Your task to perform on an android device: toggle translation in the chrome app Image 0: 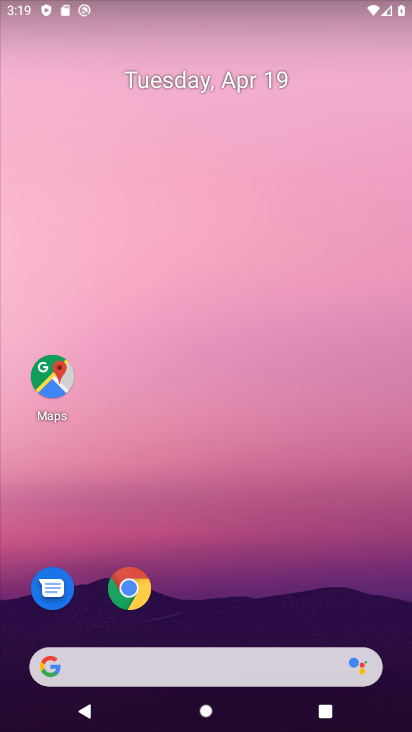
Step 0: drag from (254, 576) to (261, 110)
Your task to perform on an android device: toggle translation in the chrome app Image 1: 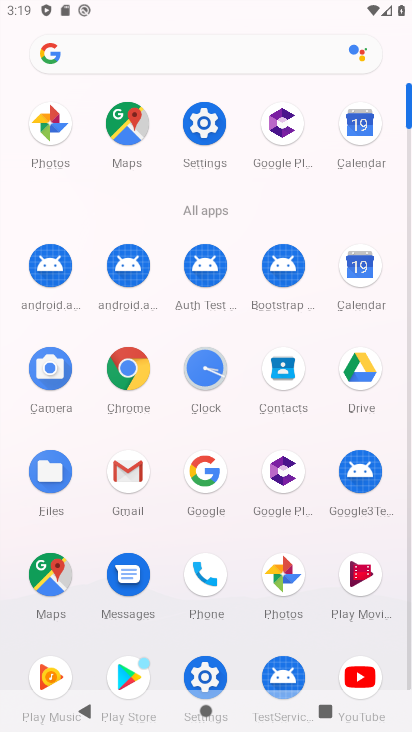
Step 1: click (122, 377)
Your task to perform on an android device: toggle translation in the chrome app Image 2: 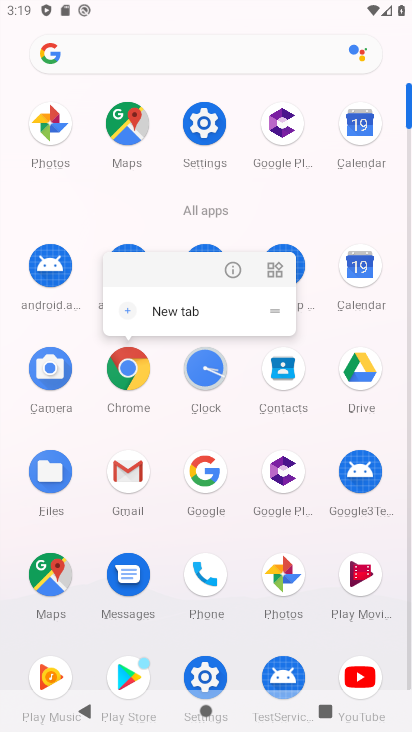
Step 2: click (134, 370)
Your task to perform on an android device: toggle translation in the chrome app Image 3: 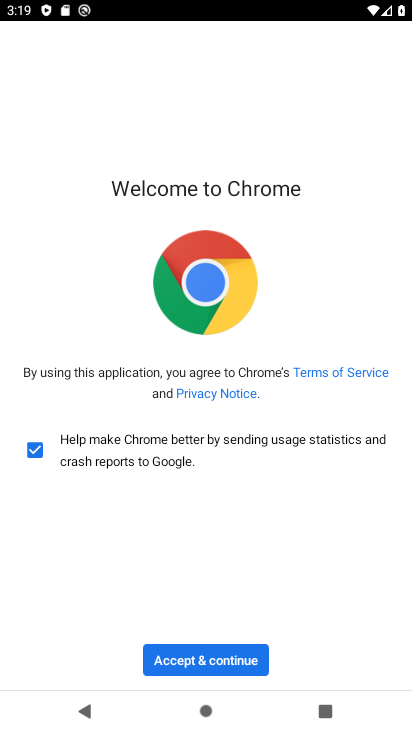
Step 3: click (234, 650)
Your task to perform on an android device: toggle translation in the chrome app Image 4: 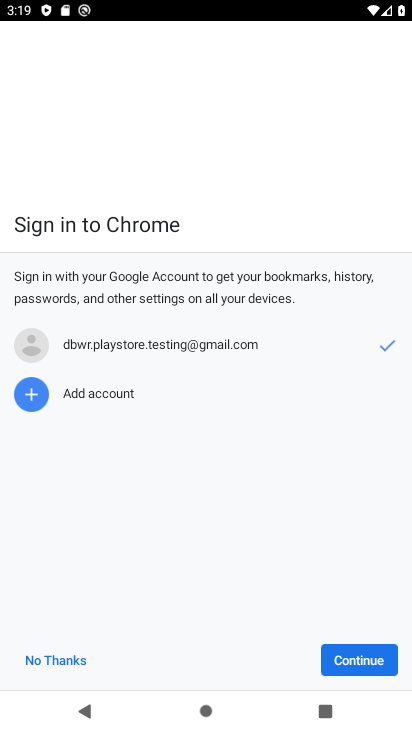
Step 4: click (356, 661)
Your task to perform on an android device: toggle translation in the chrome app Image 5: 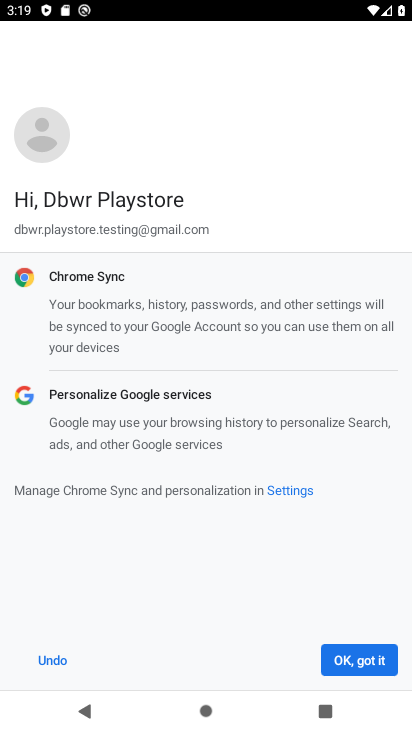
Step 5: click (358, 657)
Your task to perform on an android device: toggle translation in the chrome app Image 6: 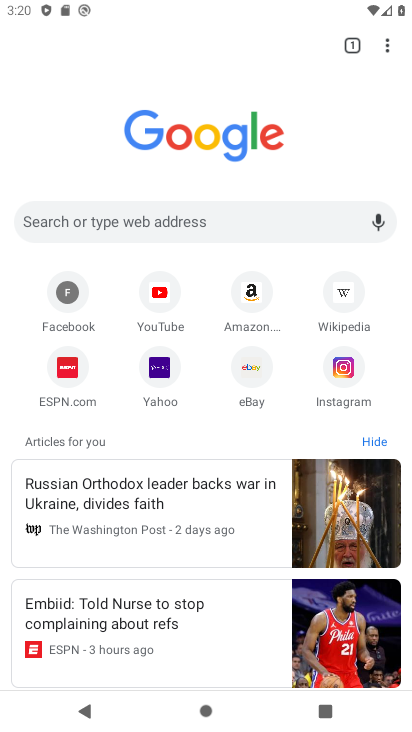
Step 6: click (384, 41)
Your task to perform on an android device: toggle translation in the chrome app Image 7: 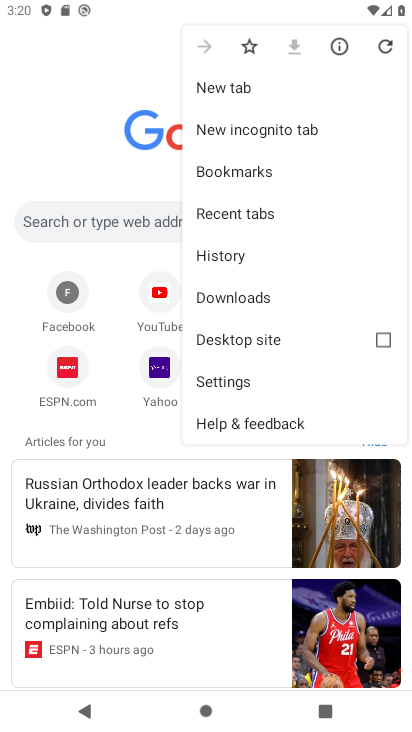
Step 7: click (267, 384)
Your task to perform on an android device: toggle translation in the chrome app Image 8: 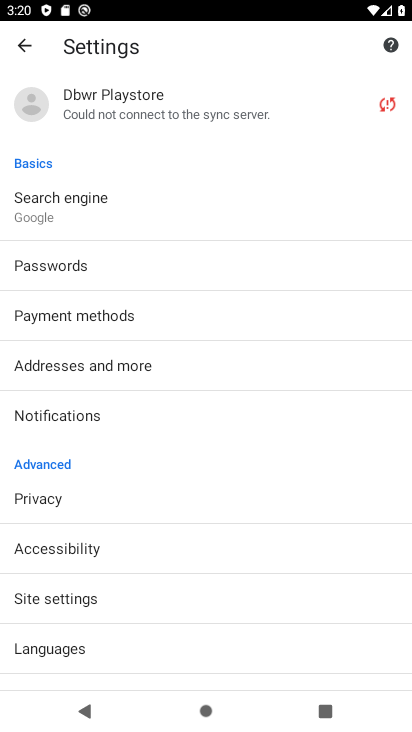
Step 8: click (112, 638)
Your task to perform on an android device: toggle translation in the chrome app Image 9: 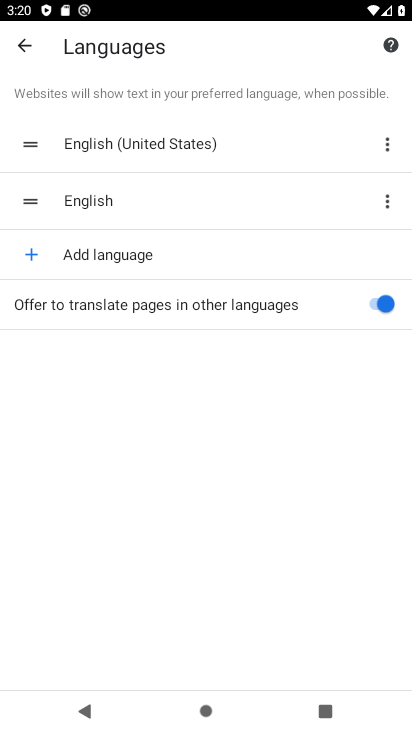
Step 9: click (375, 300)
Your task to perform on an android device: toggle translation in the chrome app Image 10: 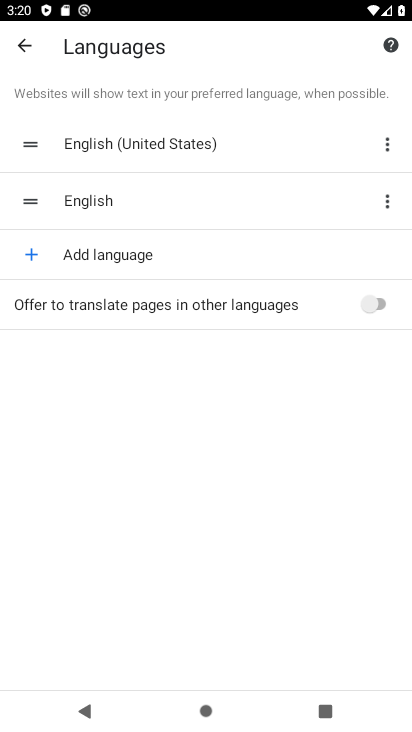
Step 10: task complete